Your task to perform on an android device: Open the map Image 0: 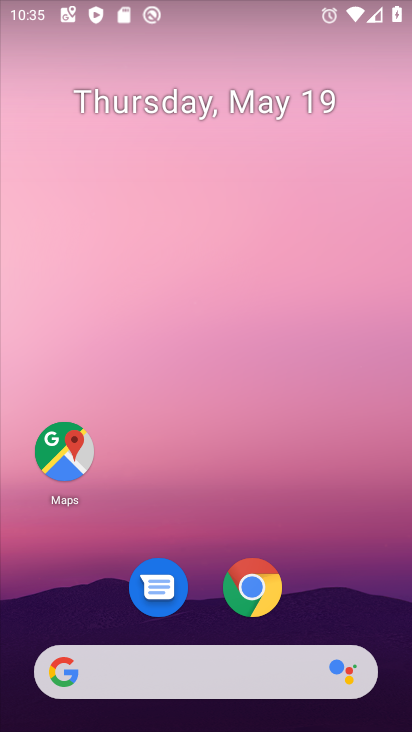
Step 0: drag from (362, 548) to (303, 58)
Your task to perform on an android device: Open the map Image 1: 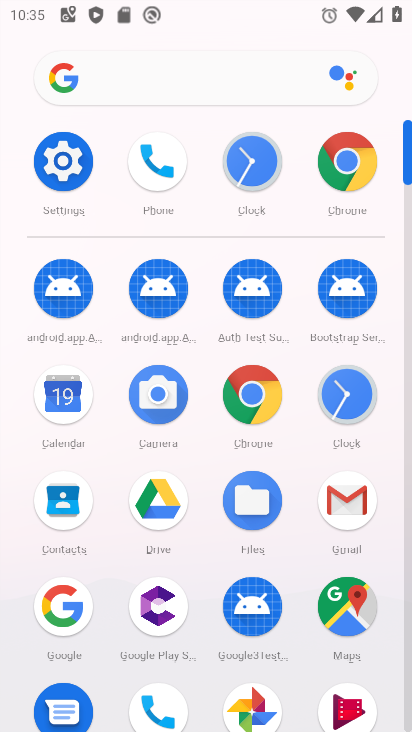
Step 1: click (344, 603)
Your task to perform on an android device: Open the map Image 2: 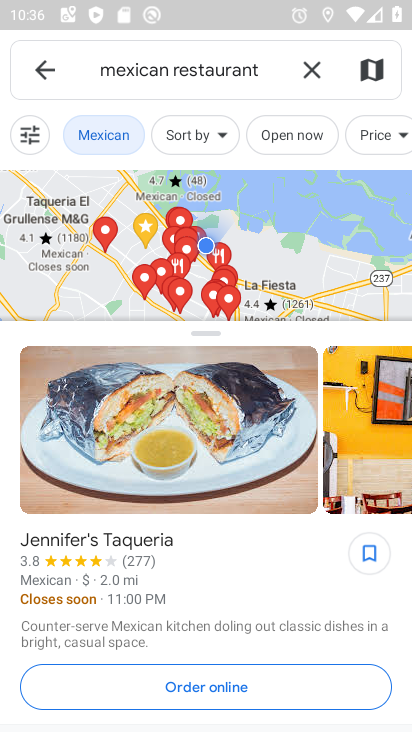
Step 2: task complete